Your task to perform on an android device: change the clock display to analog Image 0: 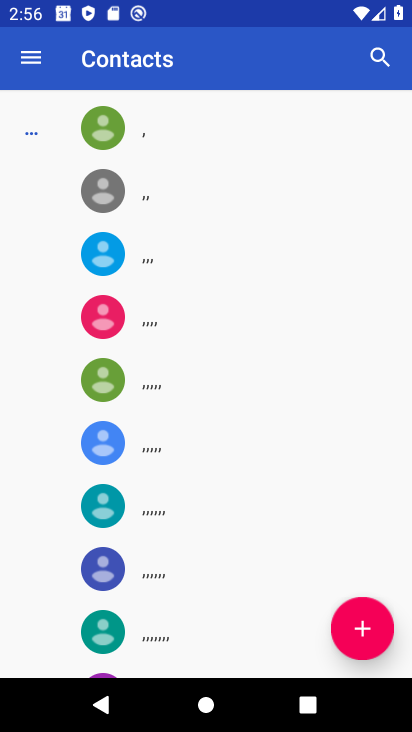
Step 0: press home button
Your task to perform on an android device: change the clock display to analog Image 1: 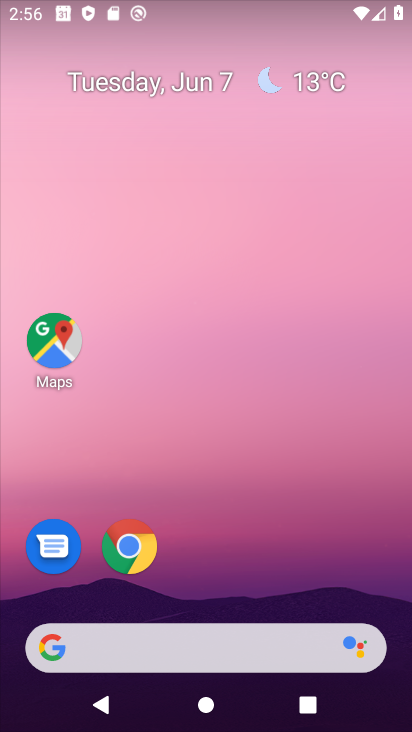
Step 1: click (189, 602)
Your task to perform on an android device: change the clock display to analog Image 2: 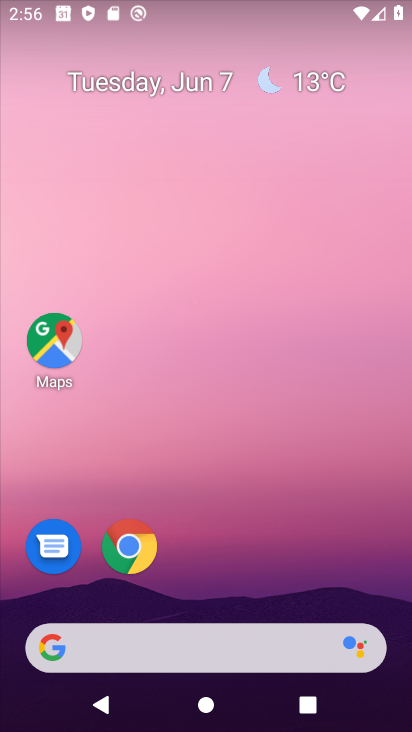
Step 2: drag from (354, 3) to (397, 42)
Your task to perform on an android device: change the clock display to analog Image 3: 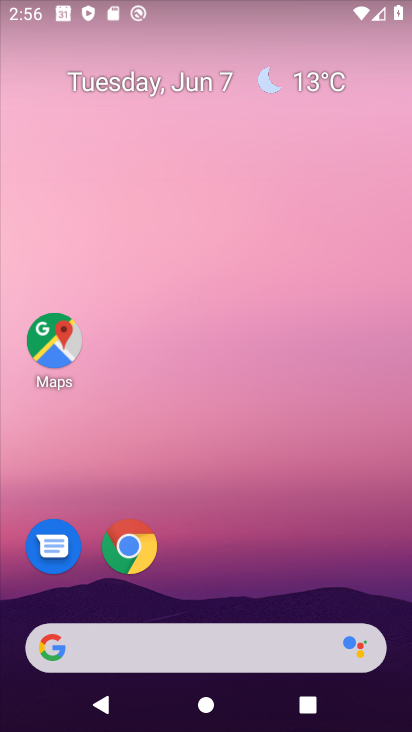
Step 3: drag from (159, 599) to (299, 106)
Your task to perform on an android device: change the clock display to analog Image 4: 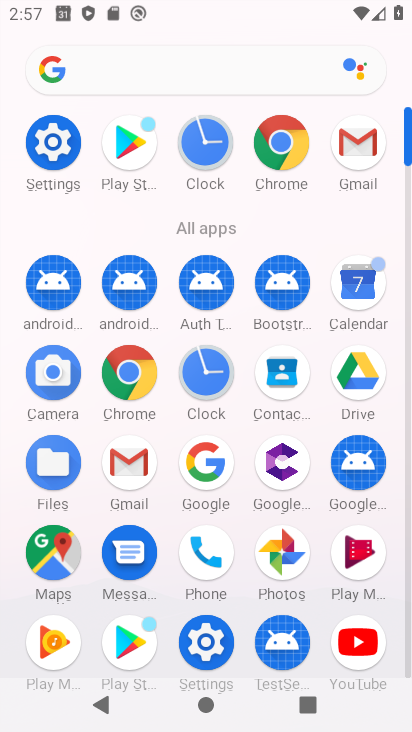
Step 4: click (205, 365)
Your task to perform on an android device: change the clock display to analog Image 5: 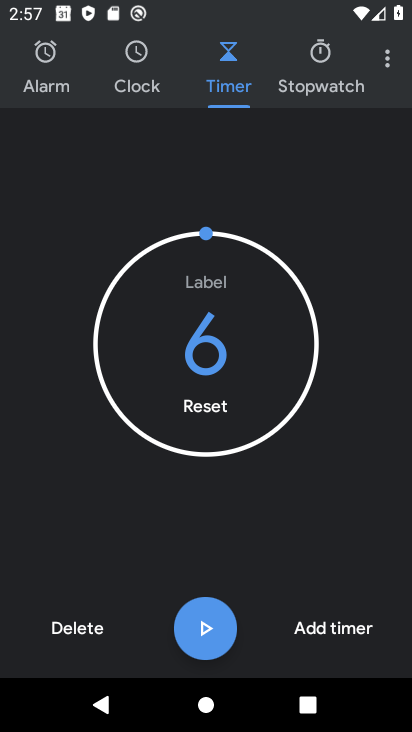
Step 5: click (389, 65)
Your task to perform on an android device: change the clock display to analog Image 6: 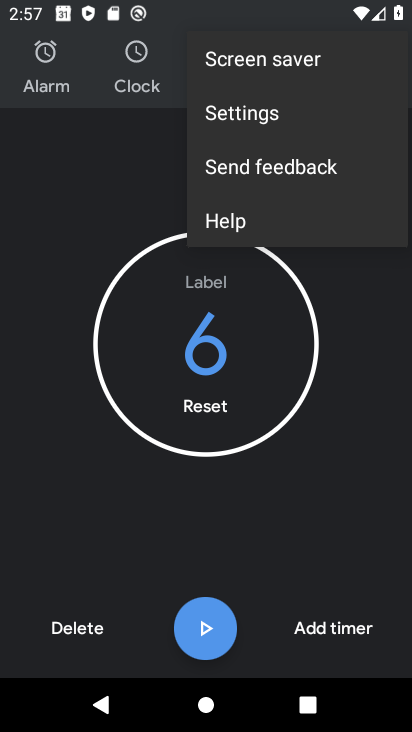
Step 6: click (268, 114)
Your task to perform on an android device: change the clock display to analog Image 7: 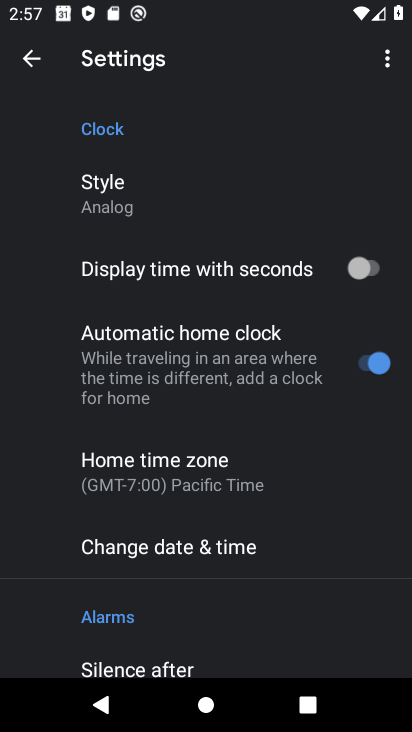
Step 7: task complete